Your task to perform on an android device: Open the Play Movies app and select the watchlist tab. Image 0: 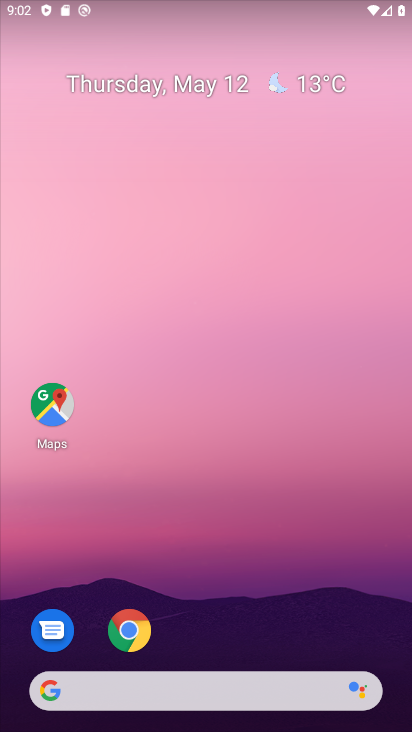
Step 0: drag from (175, 687) to (288, 80)
Your task to perform on an android device: Open the Play Movies app and select the watchlist tab. Image 1: 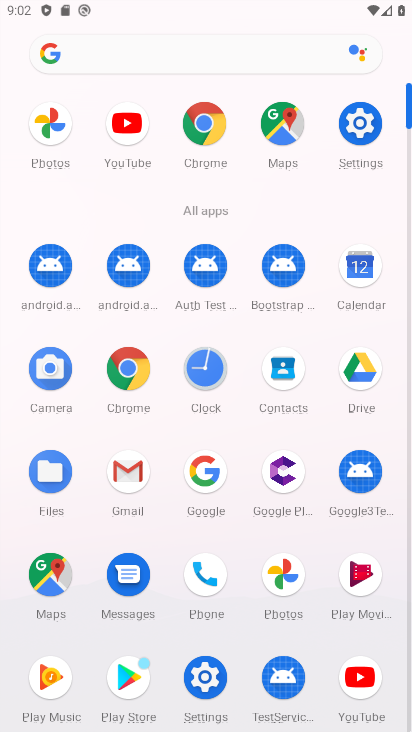
Step 1: click (357, 570)
Your task to perform on an android device: Open the Play Movies app and select the watchlist tab. Image 2: 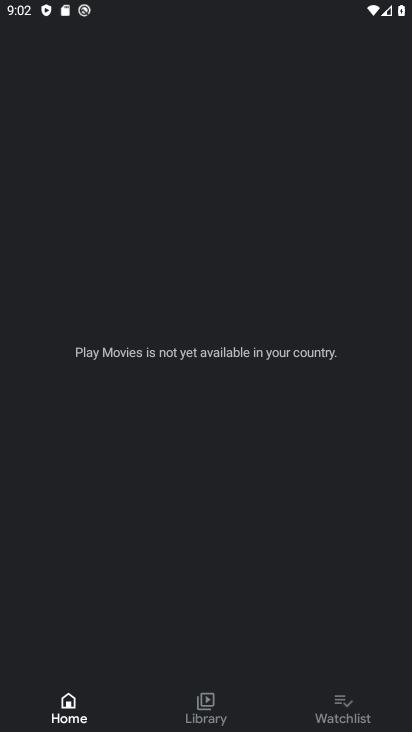
Step 2: click (333, 706)
Your task to perform on an android device: Open the Play Movies app and select the watchlist tab. Image 3: 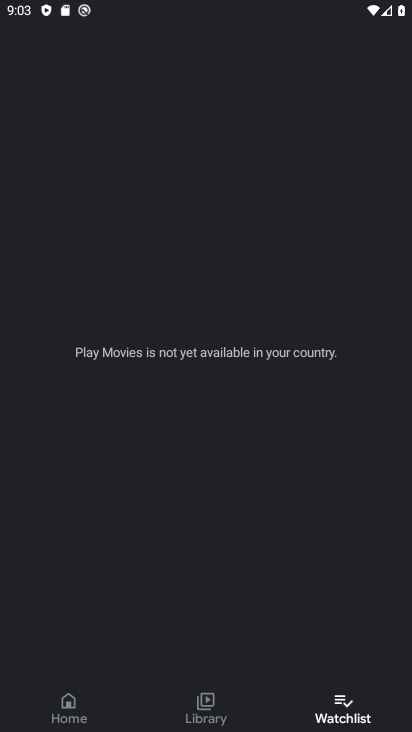
Step 3: task complete